Your task to perform on an android device: Clear the cart on walmart.com. Search for "logitech g933" on walmart.com, select the first entry, add it to the cart, then select checkout. Image 0: 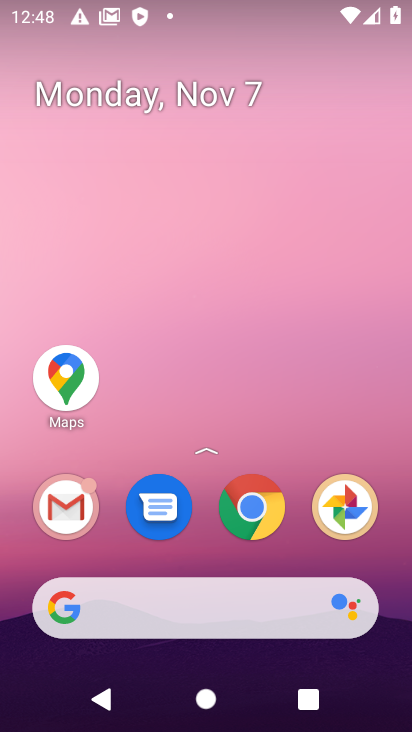
Step 0: drag from (208, 603) to (281, 131)
Your task to perform on an android device: Clear the cart on walmart.com. Search for "logitech g933" on walmart.com, select the first entry, add it to the cart, then select checkout. Image 1: 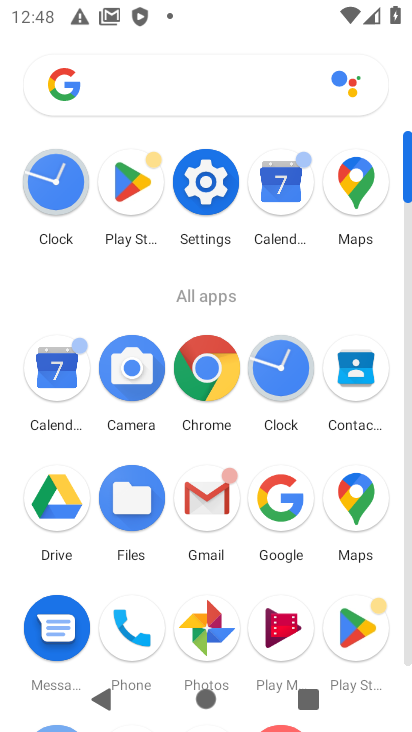
Step 1: click (217, 384)
Your task to perform on an android device: Clear the cart on walmart.com. Search for "logitech g933" on walmart.com, select the first entry, add it to the cart, then select checkout. Image 2: 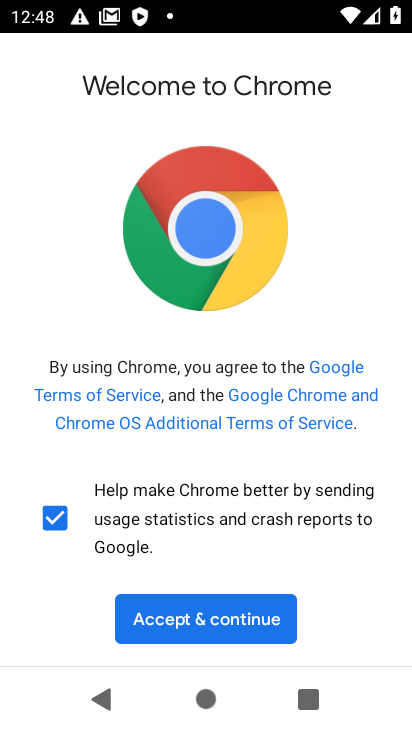
Step 2: click (179, 621)
Your task to perform on an android device: Clear the cart on walmart.com. Search for "logitech g933" on walmart.com, select the first entry, add it to the cart, then select checkout. Image 3: 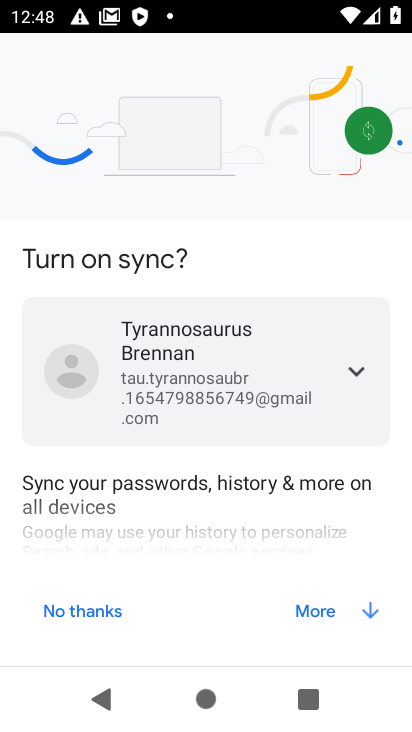
Step 3: click (303, 610)
Your task to perform on an android device: Clear the cart on walmart.com. Search for "logitech g933" on walmart.com, select the first entry, add it to the cart, then select checkout. Image 4: 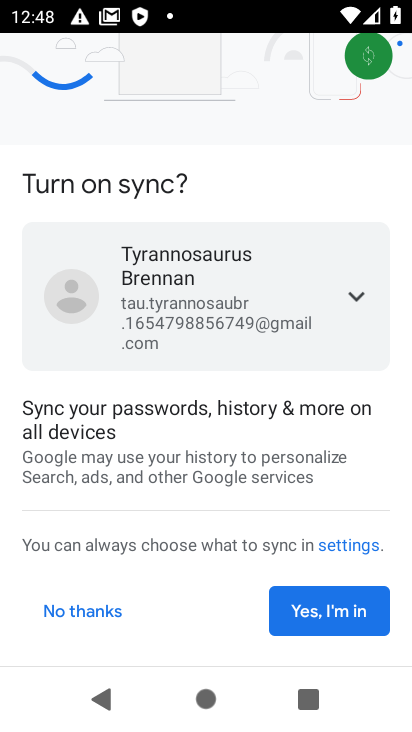
Step 4: click (348, 614)
Your task to perform on an android device: Clear the cart on walmart.com. Search for "logitech g933" on walmart.com, select the first entry, add it to the cart, then select checkout. Image 5: 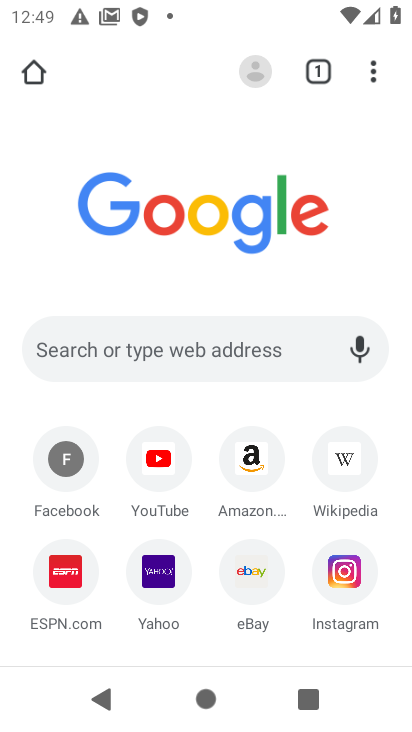
Step 5: click (246, 347)
Your task to perform on an android device: Clear the cart on walmart.com. Search for "logitech g933" on walmart.com, select the first entry, add it to the cart, then select checkout. Image 6: 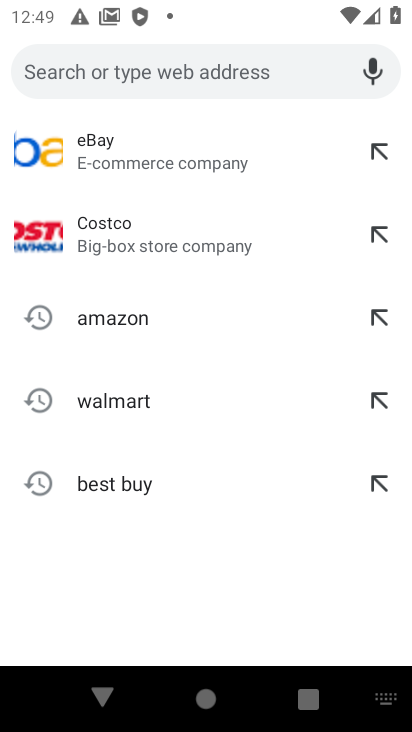
Step 6: type " walmart.com"
Your task to perform on an android device: Clear the cart on walmart.com. Search for "logitech g933" on walmart.com, select the first entry, add it to the cart, then select checkout. Image 7: 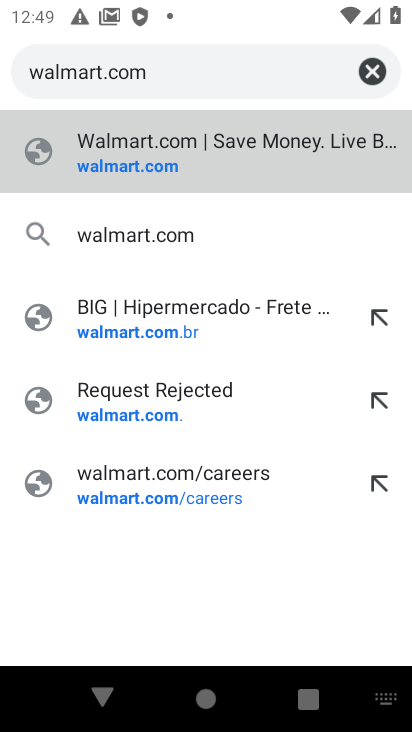
Step 7: press enter
Your task to perform on an android device: Clear the cart on walmart.com. Search for "logitech g933" on walmart.com, select the first entry, add it to the cart, then select checkout. Image 8: 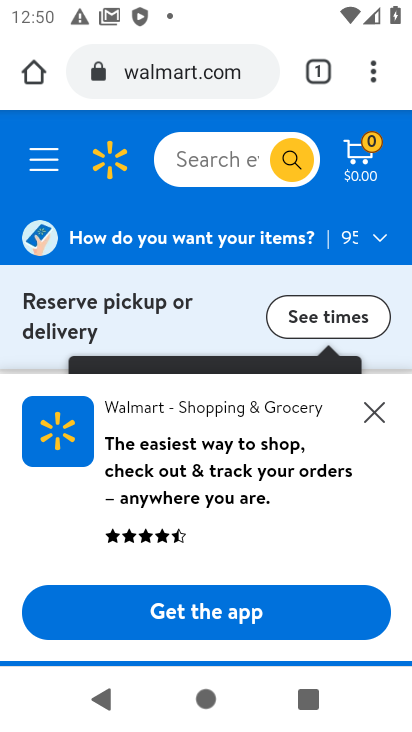
Step 8: click (370, 416)
Your task to perform on an android device: Clear the cart on walmart.com. Search for "logitech g933" on walmart.com, select the first entry, add it to the cart, then select checkout. Image 9: 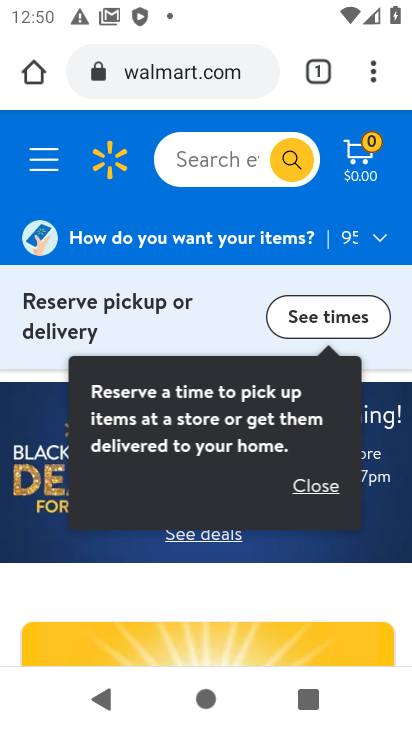
Step 9: click (244, 170)
Your task to perform on an android device: Clear the cart on walmart.com. Search for "logitech g933" on walmart.com, select the first entry, add it to the cart, then select checkout. Image 10: 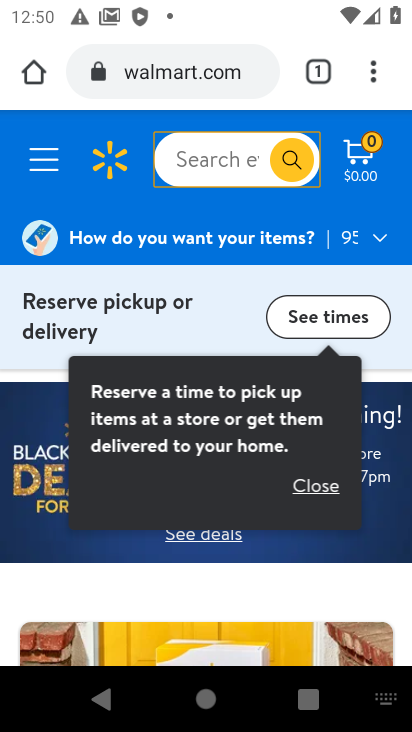
Step 10: type "logitech g933"
Your task to perform on an android device: Clear the cart on walmart.com. Search for "logitech g933" on walmart.com, select the first entry, add it to the cart, then select checkout. Image 11: 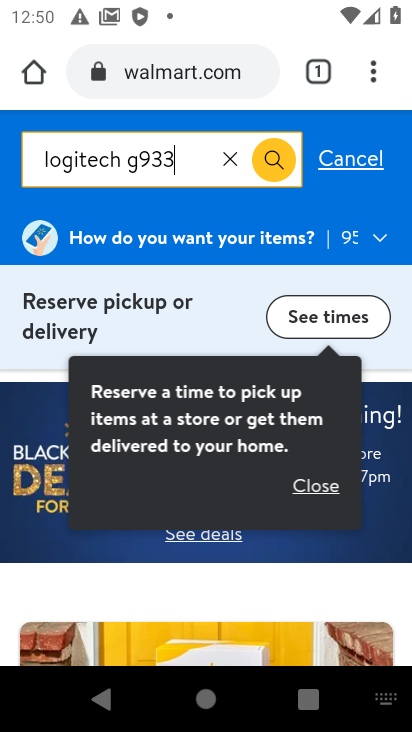
Step 11: press enter
Your task to perform on an android device: Clear the cart on walmart.com. Search for "logitech g933" on walmart.com, select the first entry, add it to the cart, then select checkout. Image 12: 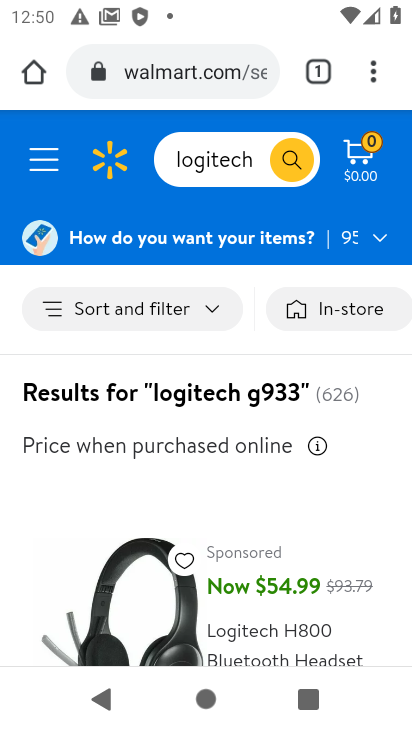
Step 12: drag from (171, 587) to (264, 345)
Your task to perform on an android device: Clear the cart on walmart.com. Search for "logitech g933" on walmart.com, select the first entry, add it to the cart, then select checkout. Image 13: 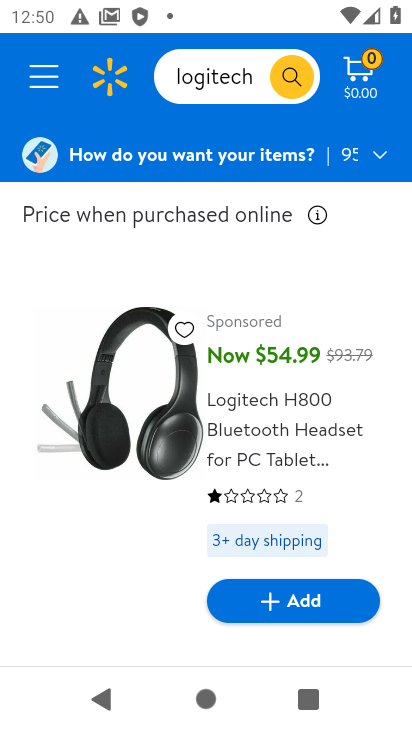
Step 13: click (310, 601)
Your task to perform on an android device: Clear the cart on walmart.com. Search for "logitech g933" on walmart.com, select the first entry, add it to the cart, then select checkout. Image 14: 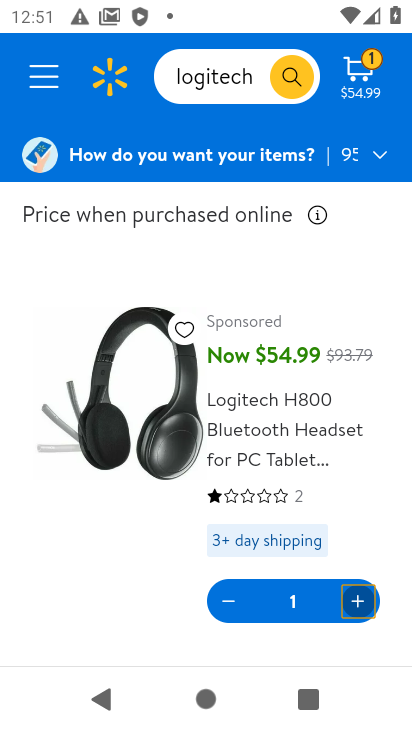
Step 14: click (368, 70)
Your task to perform on an android device: Clear the cart on walmart.com. Search for "logitech g933" on walmart.com, select the first entry, add it to the cart, then select checkout. Image 15: 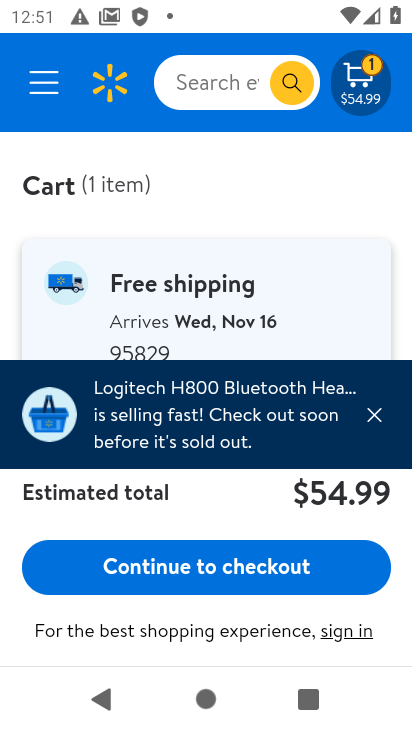
Step 15: click (203, 572)
Your task to perform on an android device: Clear the cart on walmart.com. Search for "logitech g933" on walmart.com, select the first entry, add it to the cart, then select checkout. Image 16: 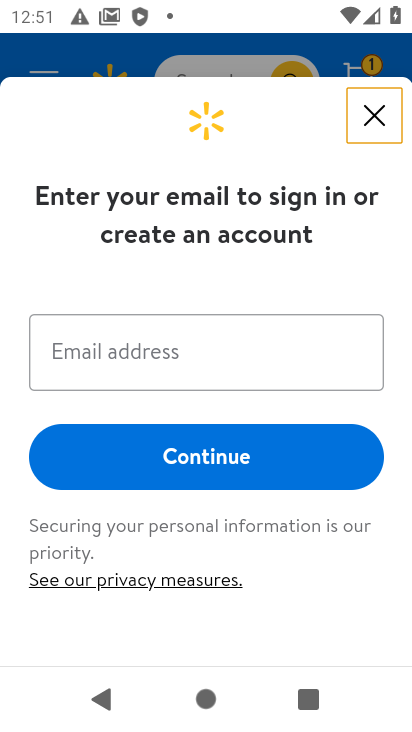
Step 16: task complete